Your task to perform on an android device: uninstall "YouTube Kids" Image 0: 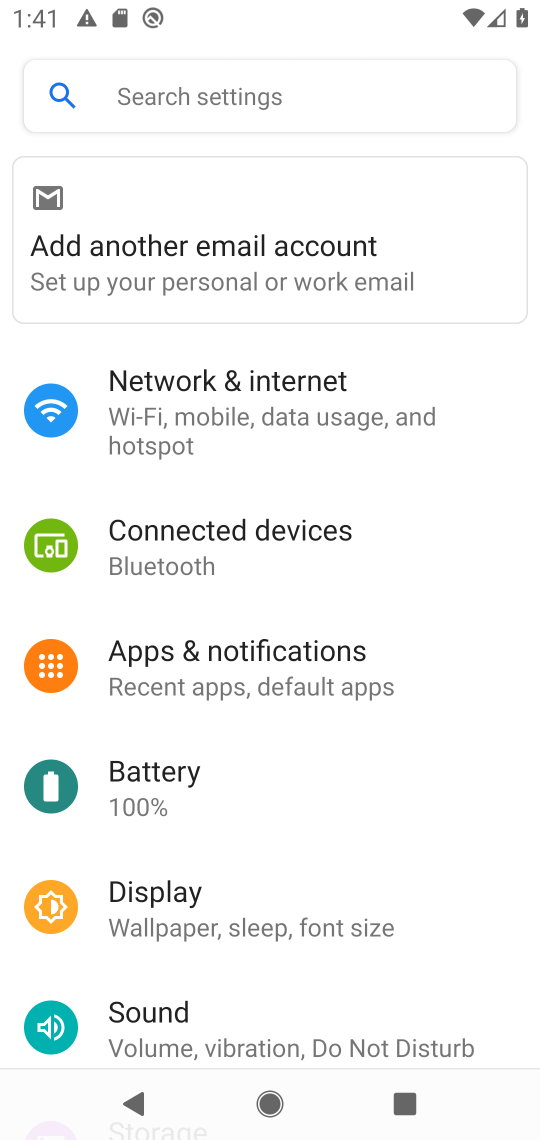
Step 0: press back button
Your task to perform on an android device: uninstall "YouTube Kids" Image 1: 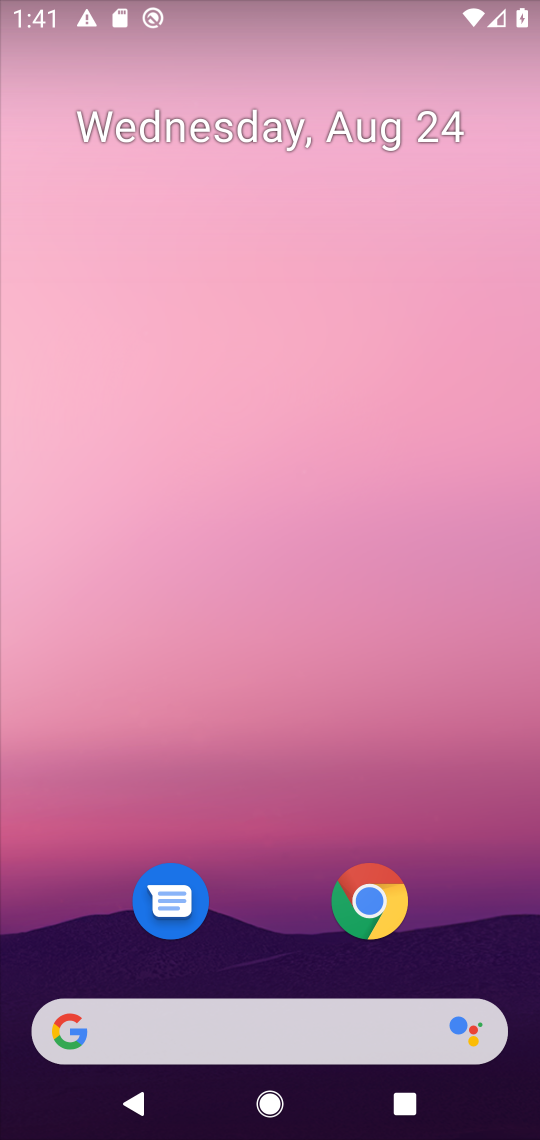
Step 1: drag from (276, 877) to (352, 17)
Your task to perform on an android device: uninstall "YouTube Kids" Image 2: 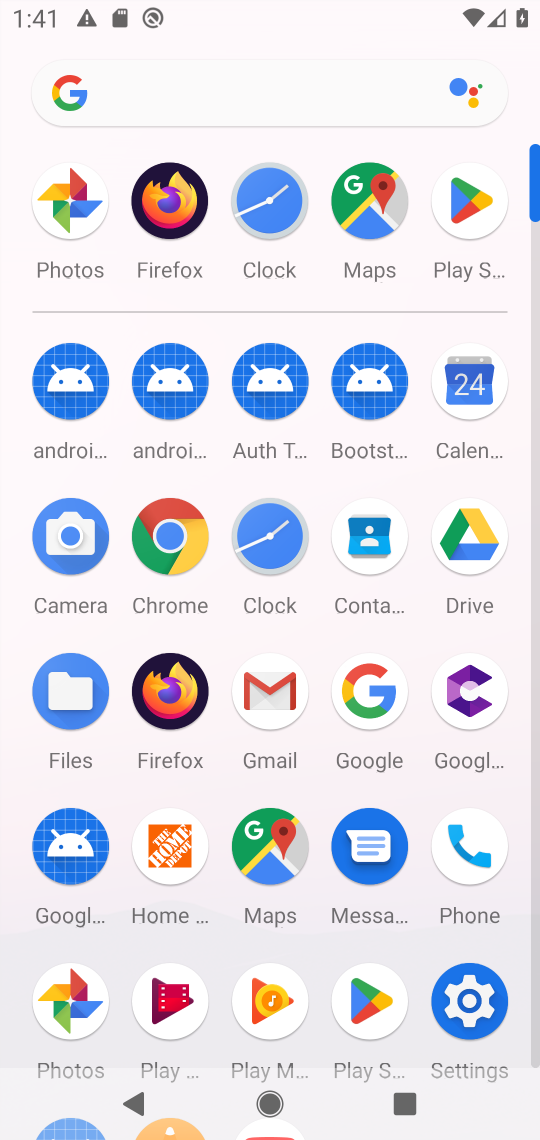
Step 2: click (475, 199)
Your task to perform on an android device: uninstall "YouTube Kids" Image 3: 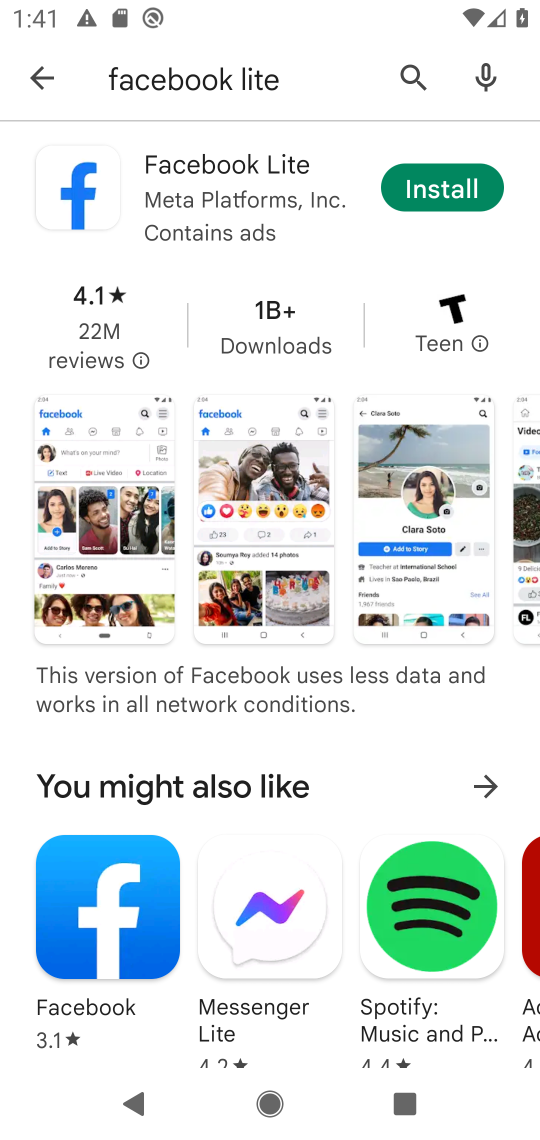
Step 3: click (414, 73)
Your task to perform on an android device: uninstall "YouTube Kids" Image 4: 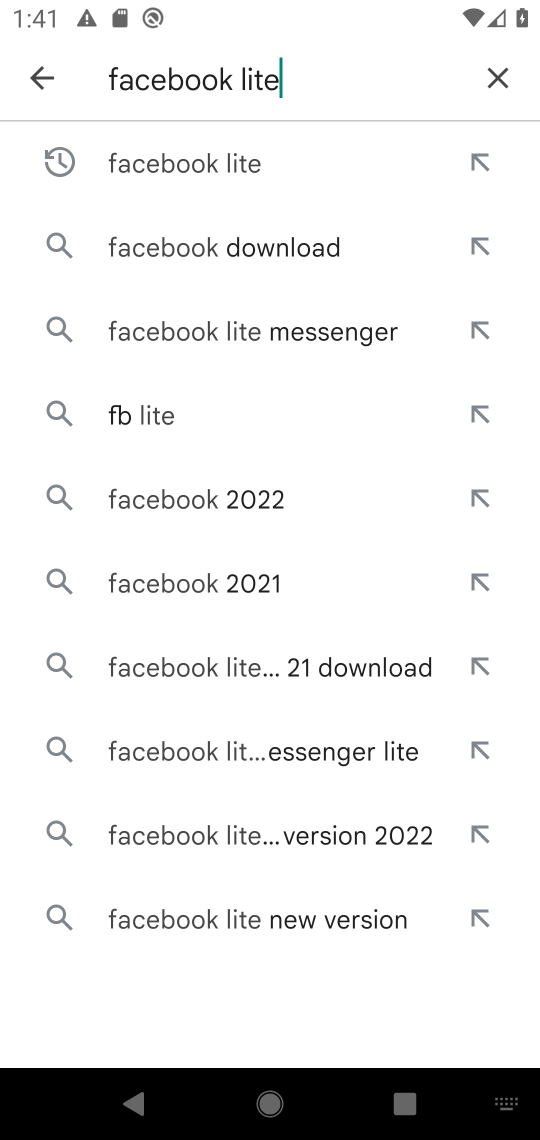
Step 4: click (500, 69)
Your task to perform on an android device: uninstall "YouTube Kids" Image 5: 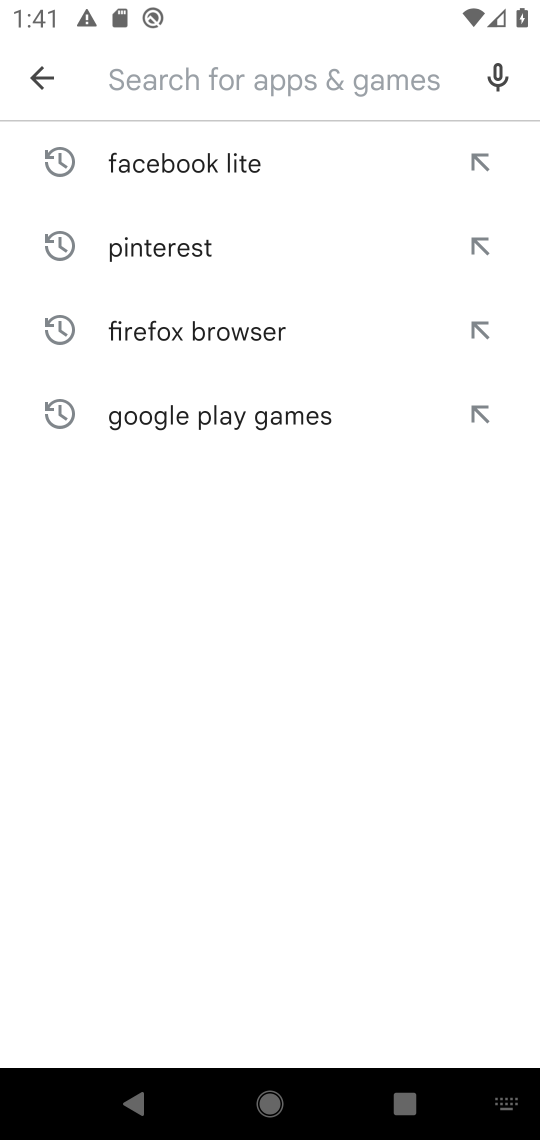
Step 5: click (217, 78)
Your task to perform on an android device: uninstall "YouTube Kids" Image 6: 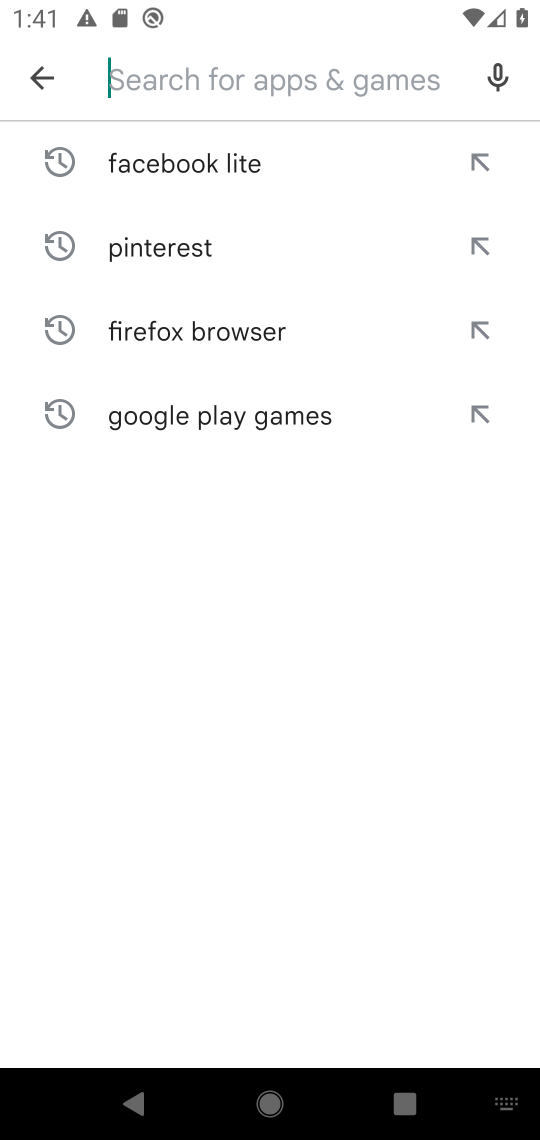
Step 6: type "YouTube Kids"
Your task to perform on an android device: uninstall "YouTube Kids" Image 7: 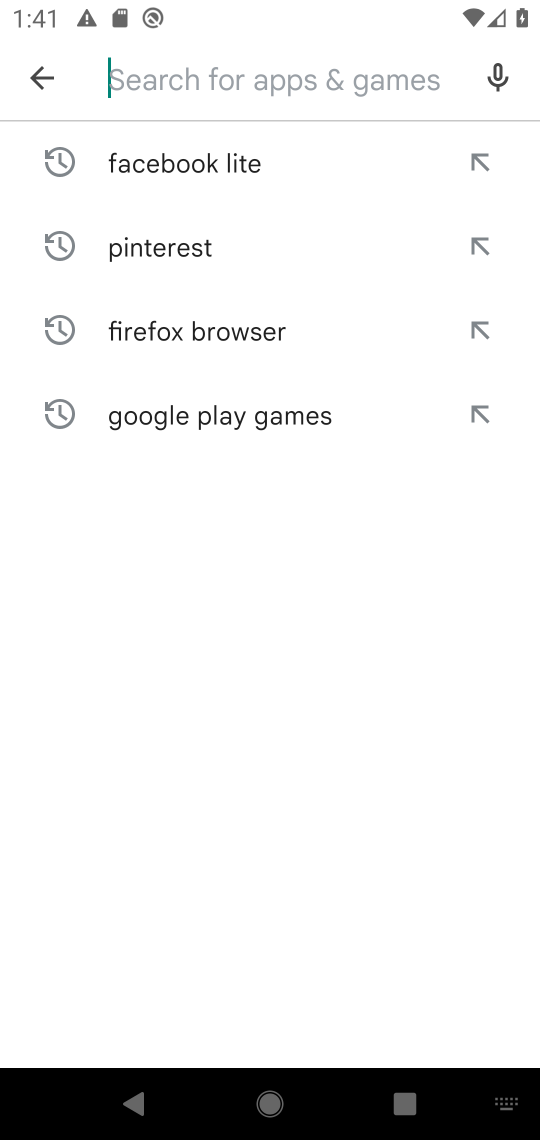
Step 7: click (263, 756)
Your task to perform on an android device: uninstall "YouTube Kids" Image 8: 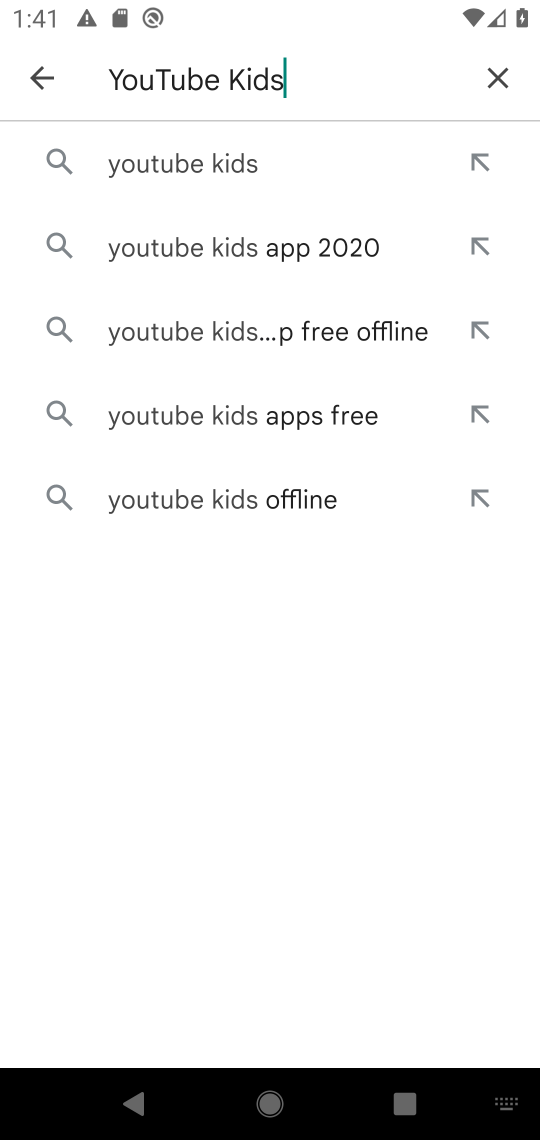
Step 8: click (236, 159)
Your task to perform on an android device: uninstall "YouTube Kids" Image 9: 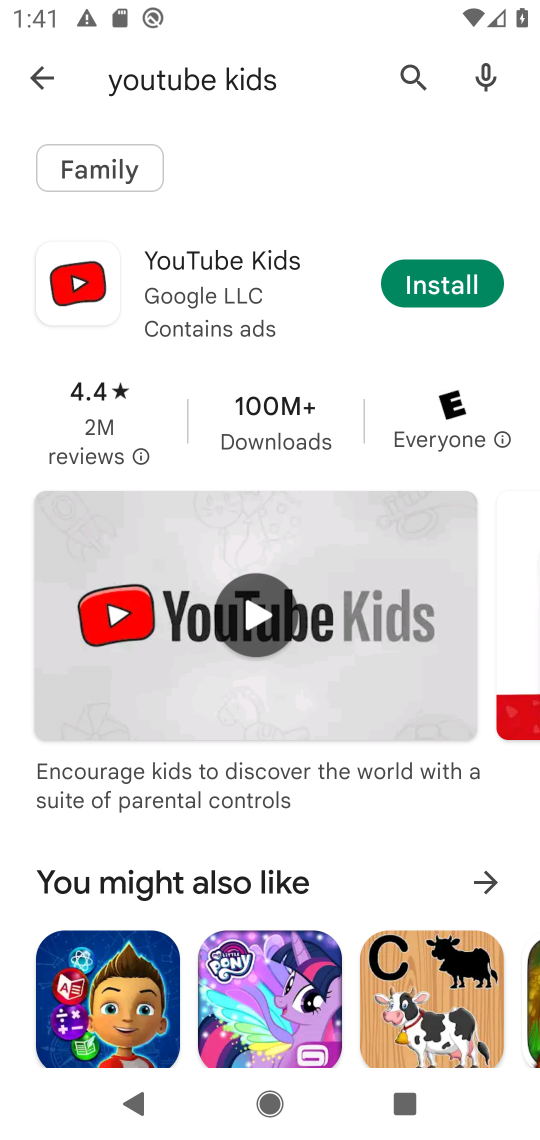
Step 9: click (177, 302)
Your task to perform on an android device: uninstall "YouTube Kids" Image 10: 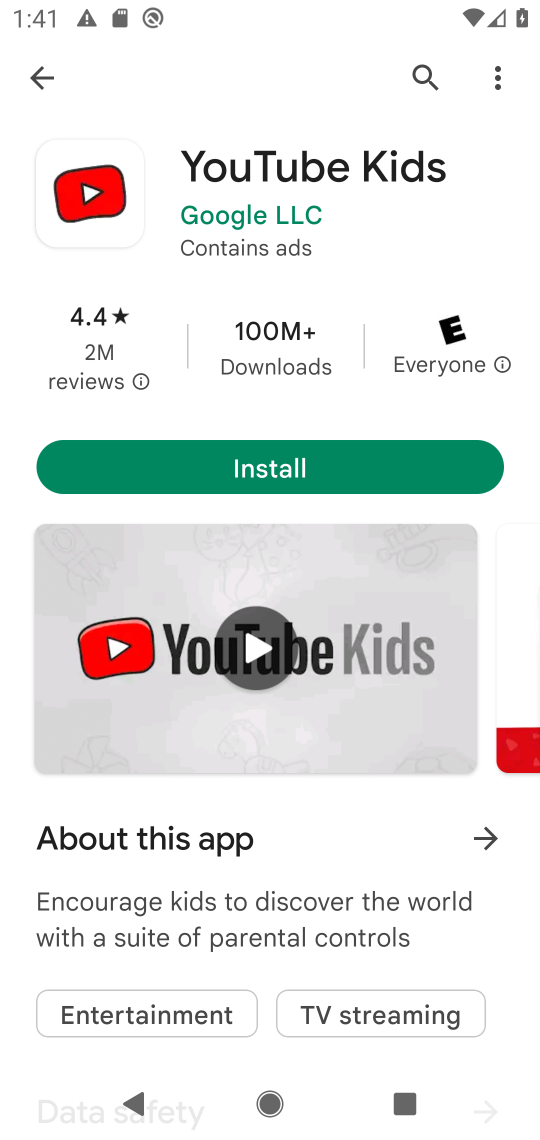
Step 10: task complete